Your task to perform on an android device: add a label to a message in the gmail app Image 0: 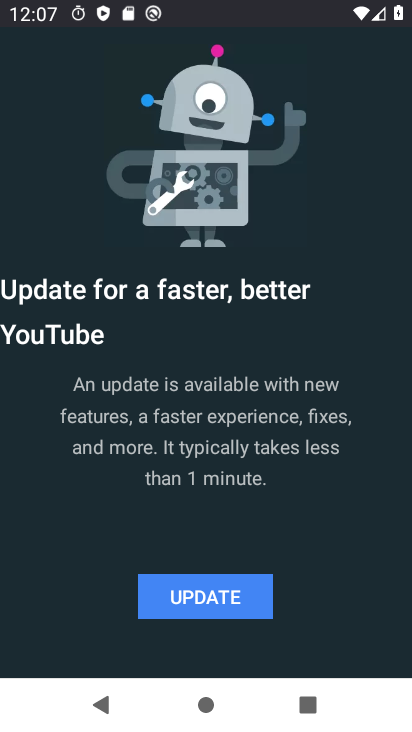
Step 0: press home button
Your task to perform on an android device: add a label to a message in the gmail app Image 1: 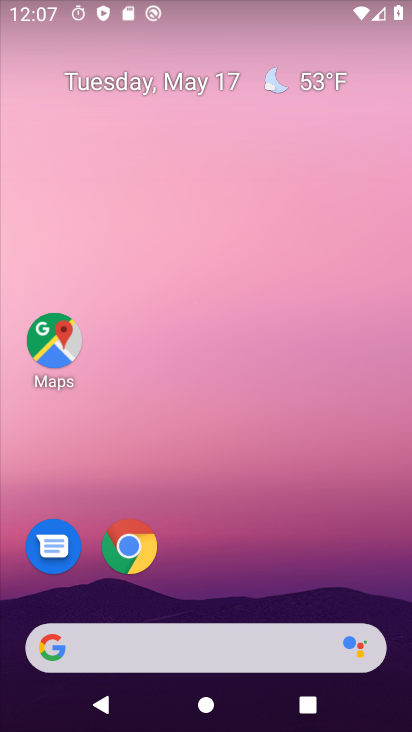
Step 1: drag from (186, 655) to (297, 179)
Your task to perform on an android device: add a label to a message in the gmail app Image 2: 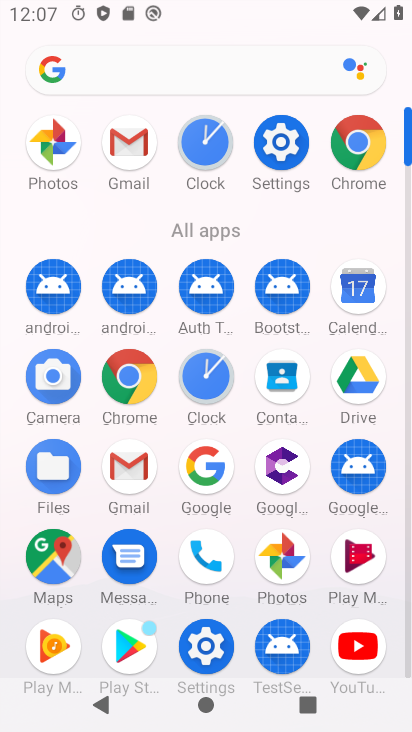
Step 2: click (132, 155)
Your task to perform on an android device: add a label to a message in the gmail app Image 3: 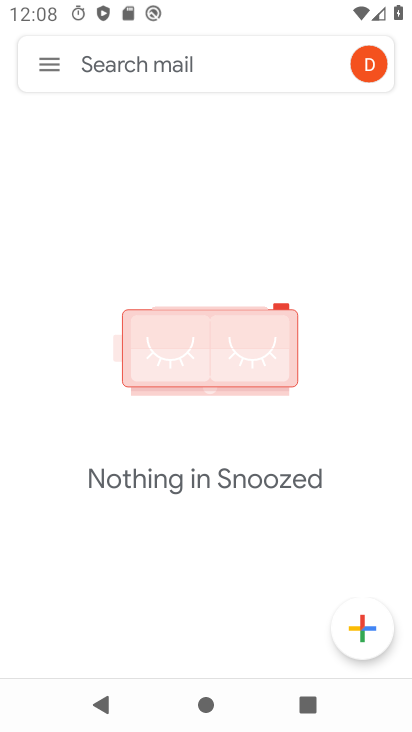
Step 3: click (44, 63)
Your task to perform on an android device: add a label to a message in the gmail app Image 4: 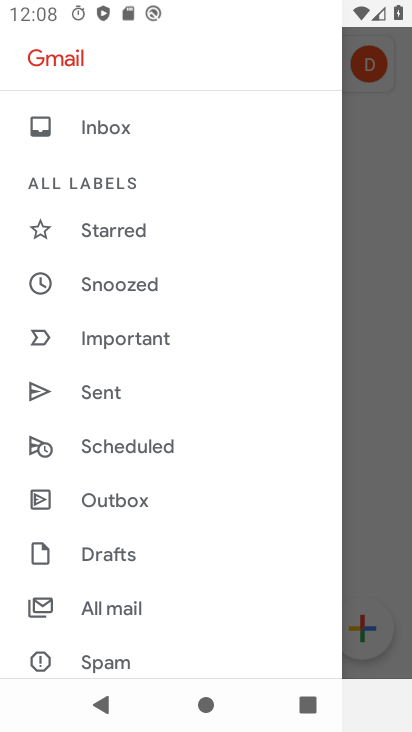
Step 4: click (134, 602)
Your task to perform on an android device: add a label to a message in the gmail app Image 5: 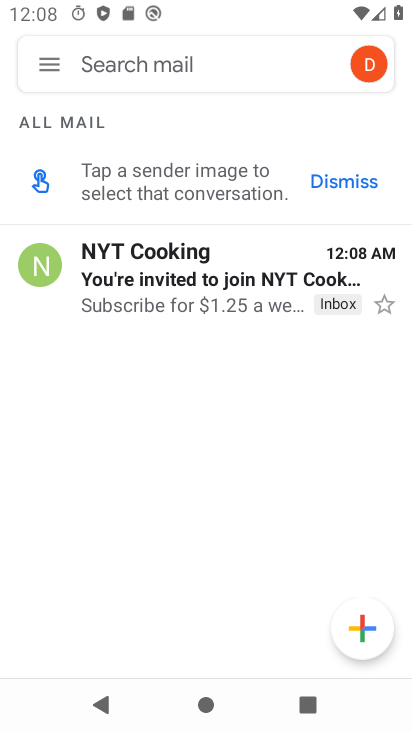
Step 5: click (50, 263)
Your task to perform on an android device: add a label to a message in the gmail app Image 6: 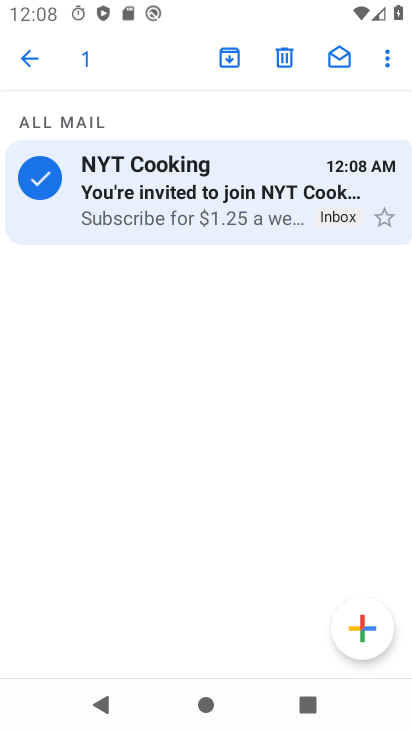
Step 6: click (186, 187)
Your task to perform on an android device: add a label to a message in the gmail app Image 7: 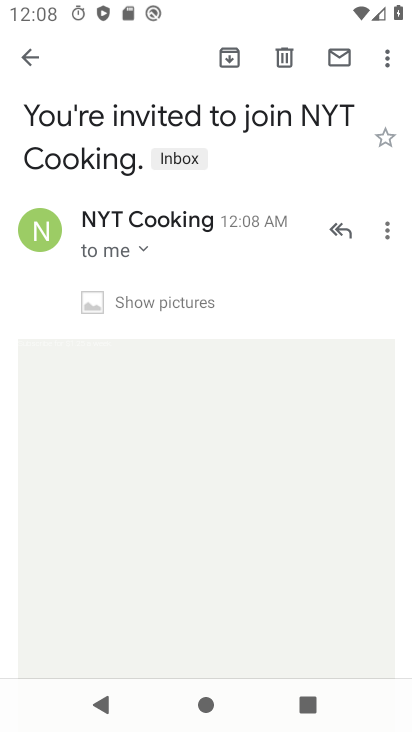
Step 7: click (184, 155)
Your task to perform on an android device: add a label to a message in the gmail app Image 8: 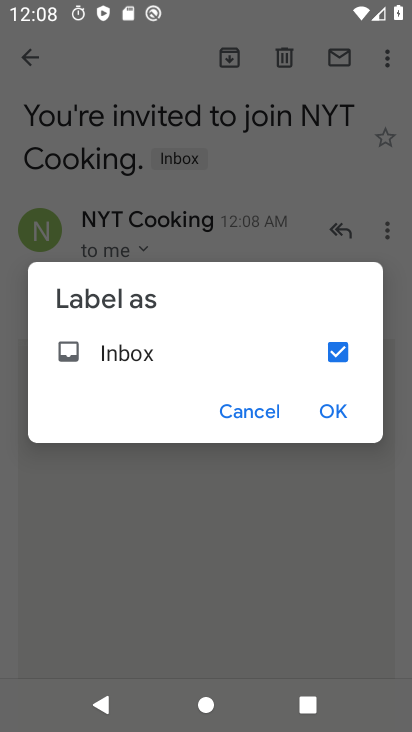
Step 8: click (346, 360)
Your task to perform on an android device: add a label to a message in the gmail app Image 9: 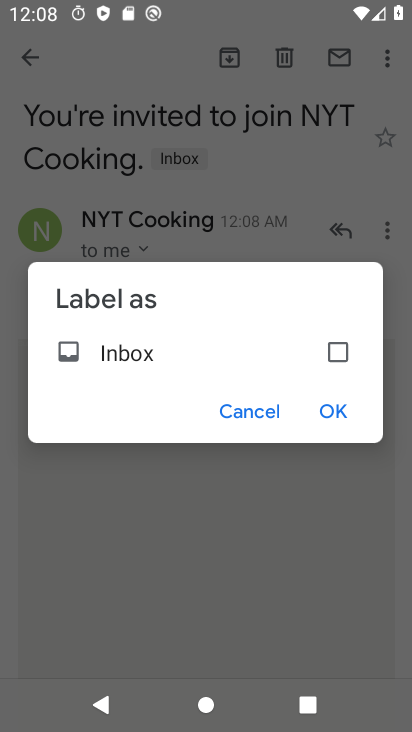
Step 9: click (345, 415)
Your task to perform on an android device: add a label to a message in the gmail app Image 10: 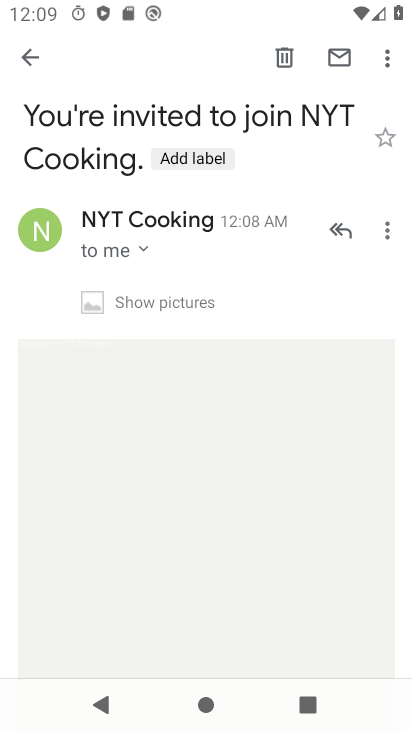
Step 10: task complete